Your task to perform on an android device: Open notification settings Image 0: 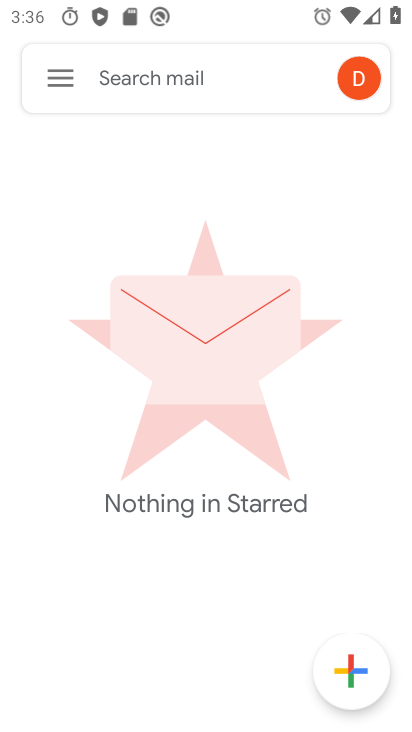
Step 0: press home button
Your task to perform on an android device: Open notification settings Image 1: 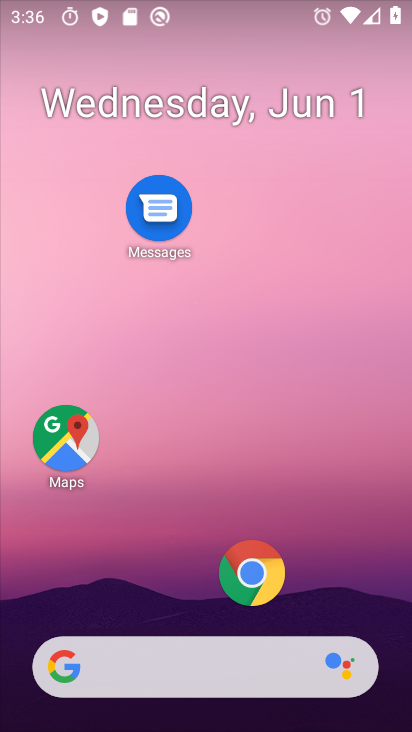
Step 1: drag from (187, 608) to (187, 250)
Your task to perform on an android device: Open notification settings Image 2: 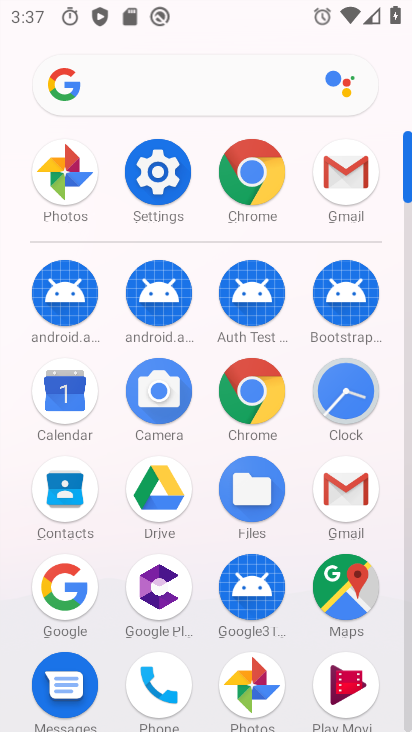
Step 2: click (136, 167)
Your task to perform on an android device: Open notification settings Image 3: 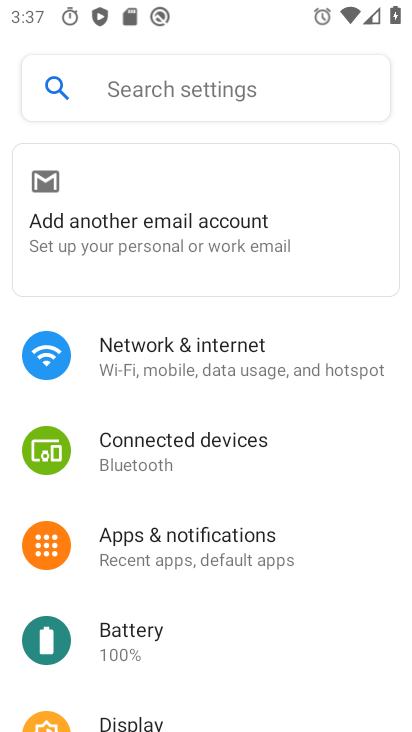
Step 3: click (213, 557)
Your task to perform on an android device: Open notification settings Image 4: 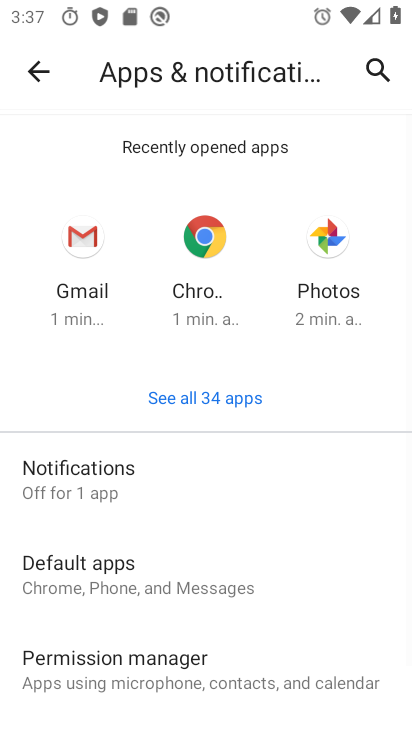
Step 4: click (120, 503)
Your task to perform on an android device: Open notification settings Image 5: 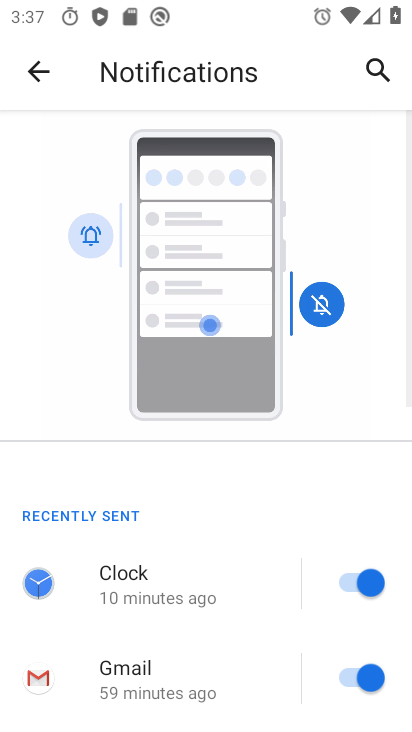
Step 5: task complete